Your task to perform on an android device: Go to CNN.com Image 0: 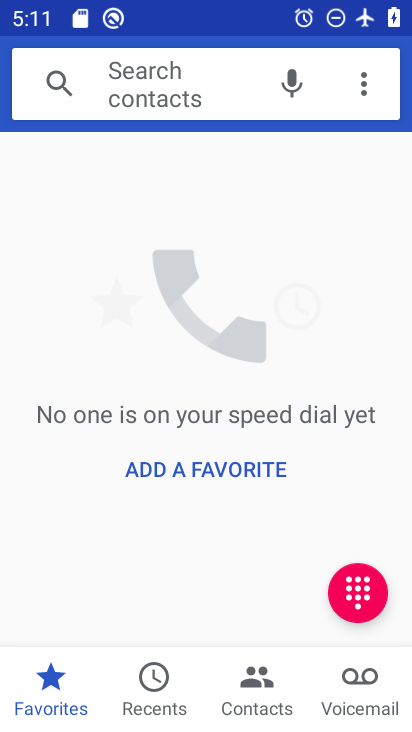
Step 0: press home button
Your task to perform on an android device: Go to CNN.com Image 1: 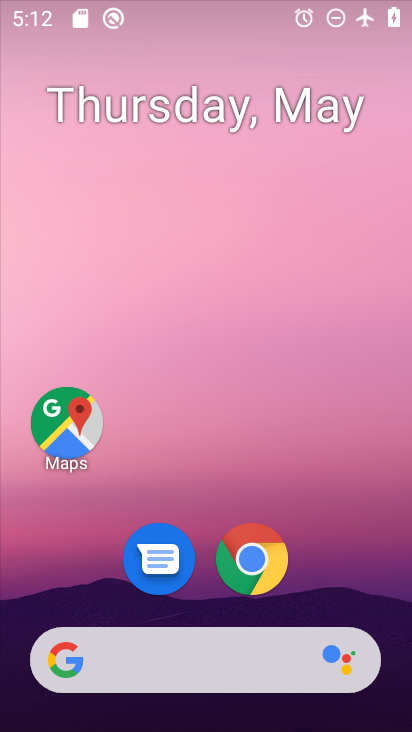
Step 1: click (269, 557)
Your task to perform on an android device: Go to CNN.com Image 2: 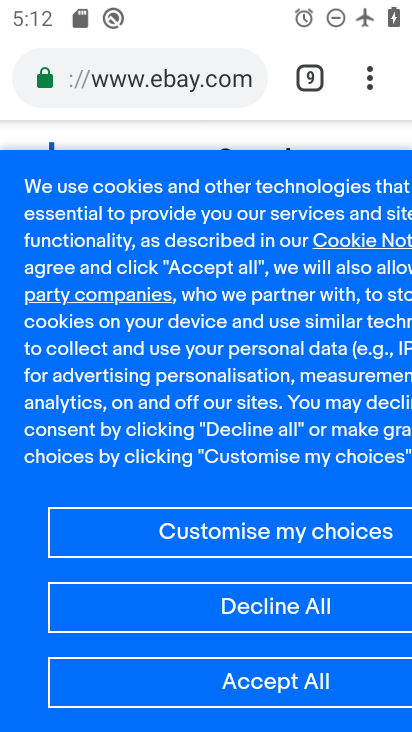
Step 2: click (311, 75)
Your task to perform on an android device: Go to CNN.com Image 3: 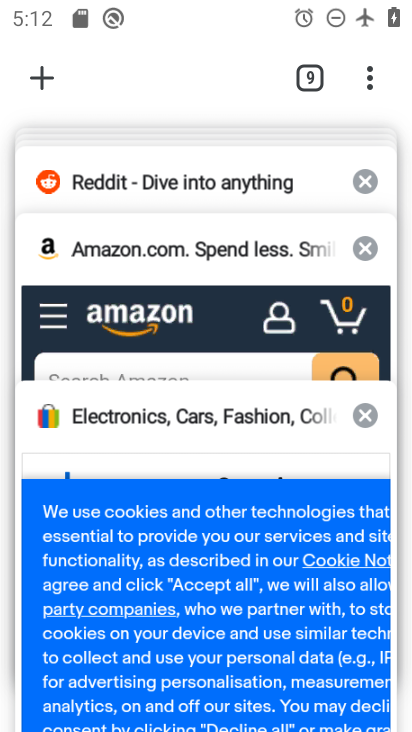
Step 3: click (32, 84)
Your task to perform on an android device: Go to CNN.com Image 4: 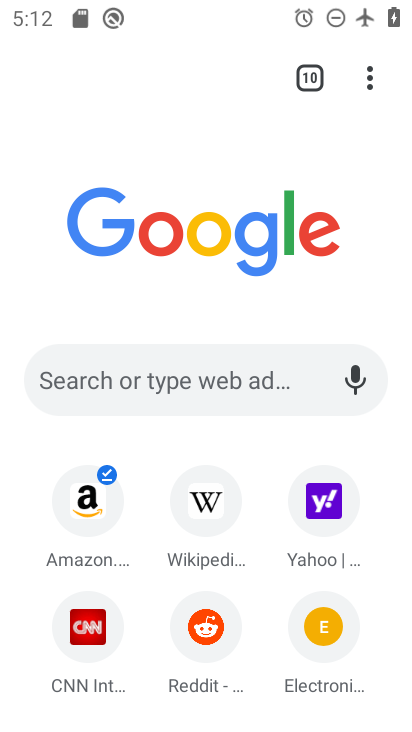
Step 4: click (89, 633)
Your task to perform on an android device: Go to CNN.com Image 5: 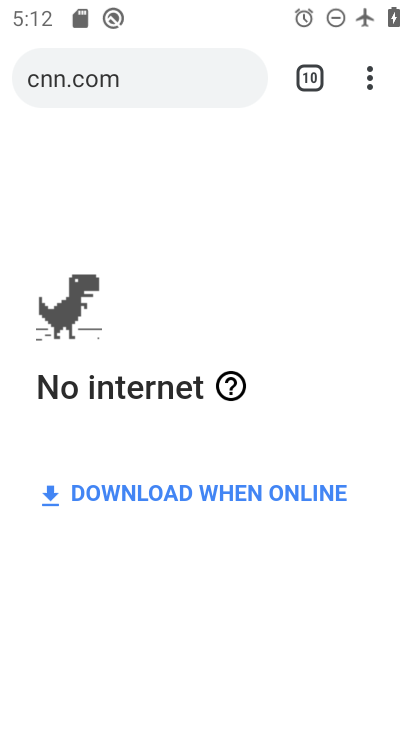
Step 5: task complete